Your task to perform on an android device: Go to Amazon Image 0: 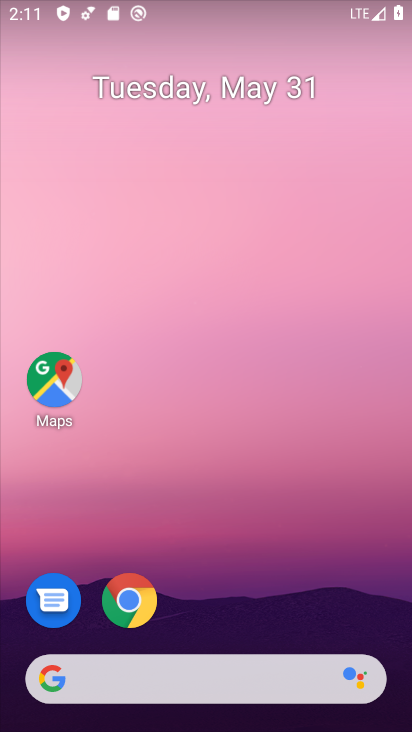
Step 0: click (125, 597)
Your task to perform on an android device: Go to Amazon Image 1: 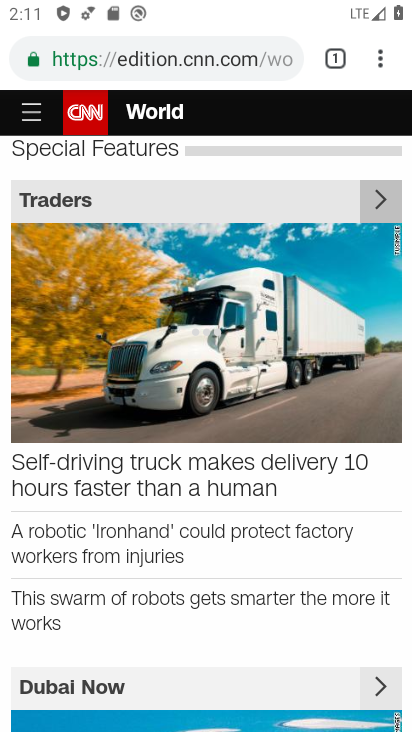
Step 1: click (332, 49)
Your task to perform on an android device: Go to Amazon Image 2: 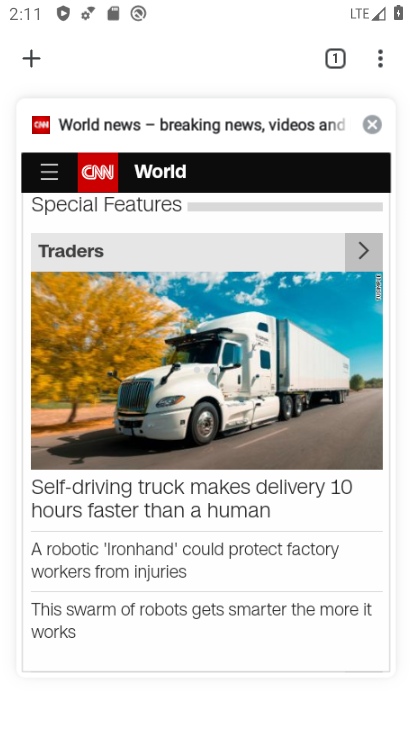
Step 2: click (370, 122)
Your task to perform on an android device: Go to Amazon Image 3: 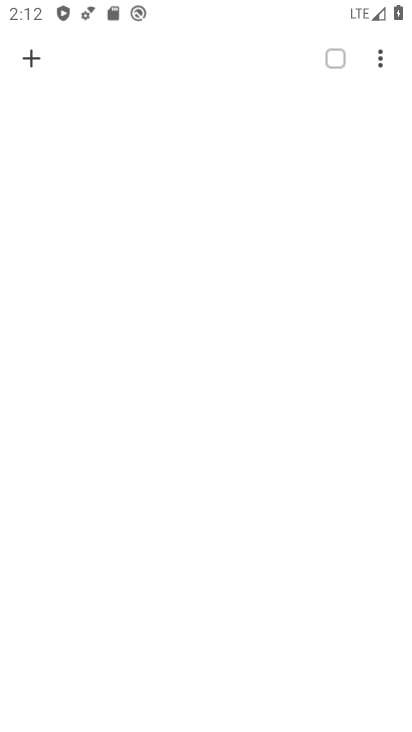
Step 3: click (35, 56)
Your task to perform on an android device: Go to Amazon Image 4: 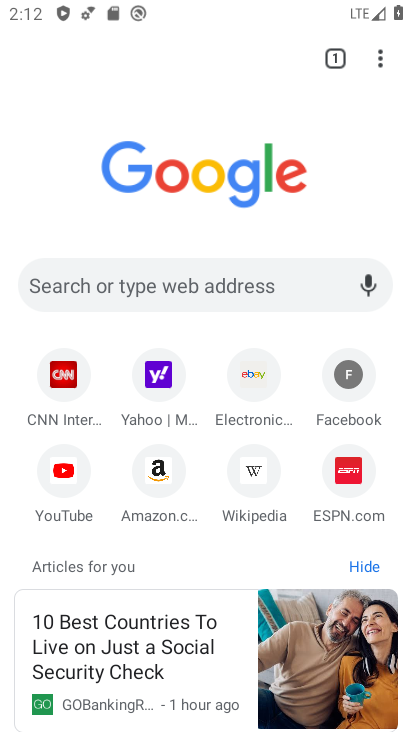
Step 4: click (155, 462)
Your task to perform on an android device: Go to Amazon Image 5: 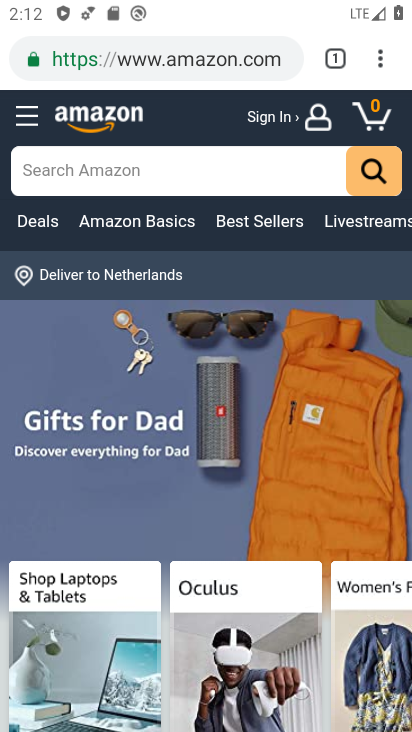
Step 5: task complete